Your task to perform on an android device: Check the weather Image 0: 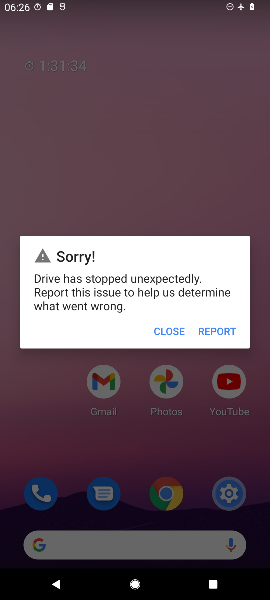
Step 0: press home button
Your task to perform on an android device: Check the weather Image 1: 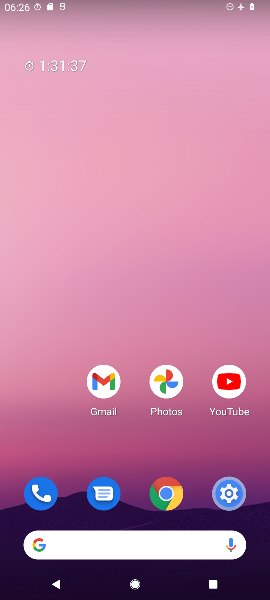
Step 1: click (124, 550)
Your task to perform on an android device: Check the weather Image 2: 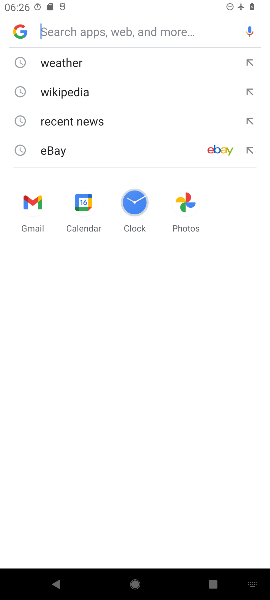
Step 2: click (69, 59)
Your task to perform on an android device: Check the weather Image 3: 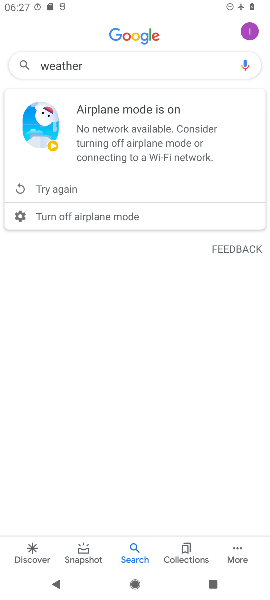
Step 3: task complete